Your task to perform on an android device: stop showing notifications on the lock screen Image 0: 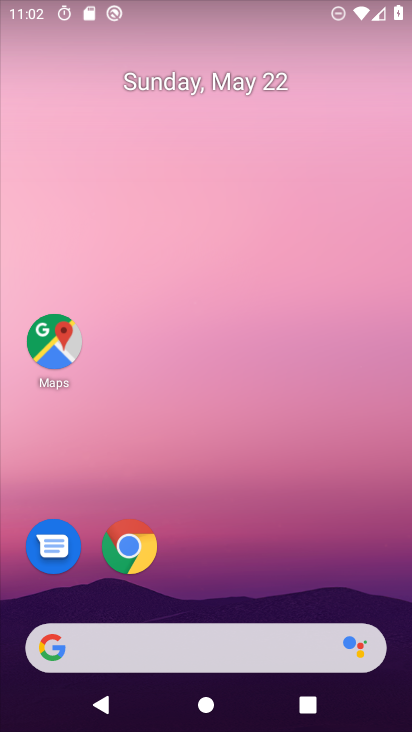
Step 0: drag from (190, 381) to (209, 1)
Your task to perform on an android device: stop showing notifications on the lock screen Image 1: 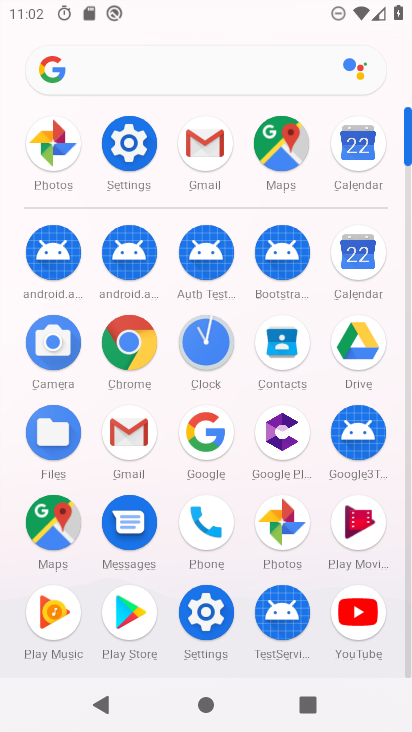
Step 1: click (200, 627)
Your task to perform on an android device: stop showing notifications on the lock screen Image 2: 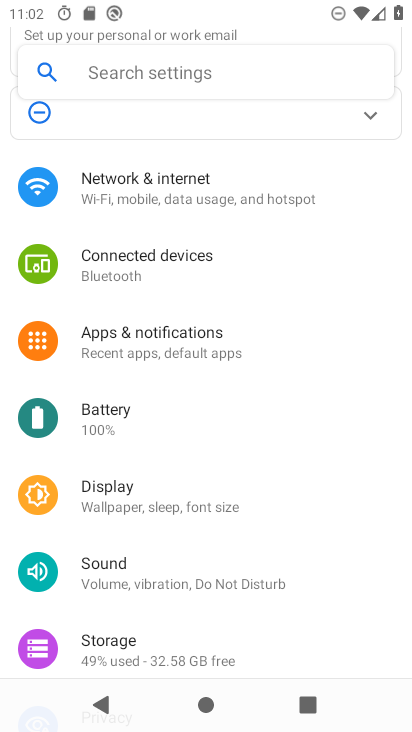
Step 2: click (194, 350)
Your task to perform on an android device: stop showing notifications on the lock screen Image 3: 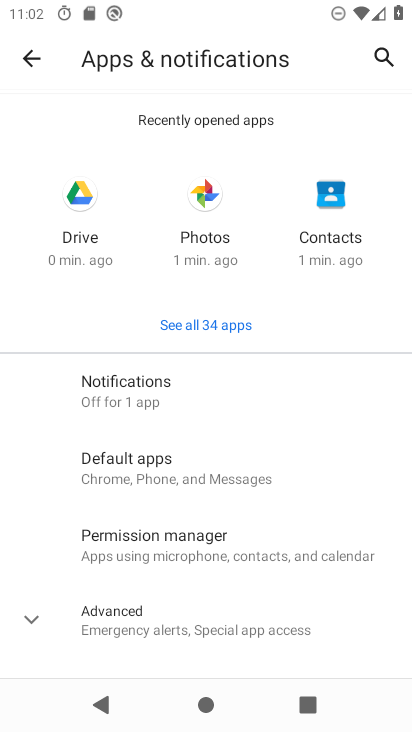
Step 3: click (153, 402)
Your task to perform on an android device: stop showing notifications on the lock screen Image 4: 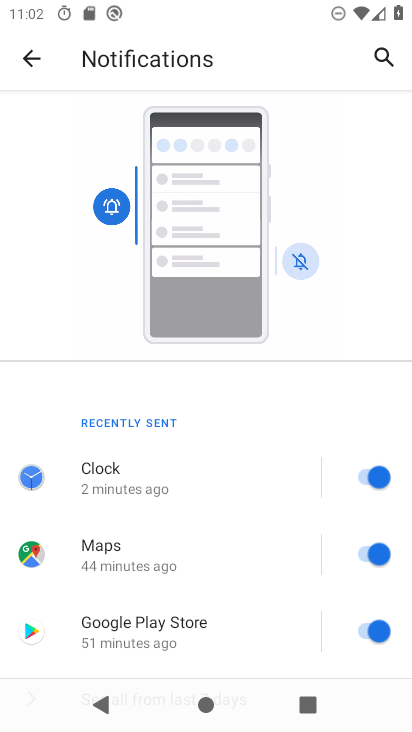
Step 4: task complete